Your task to perform on an android device: turn on the 12-hour format for clock Image 0: 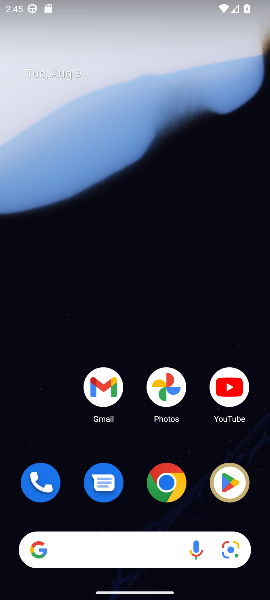
Step 0: drag from (152, 241) to (171, 0)
Your task to perform on an android device: turn on the 12-hour format for clock Image 1: 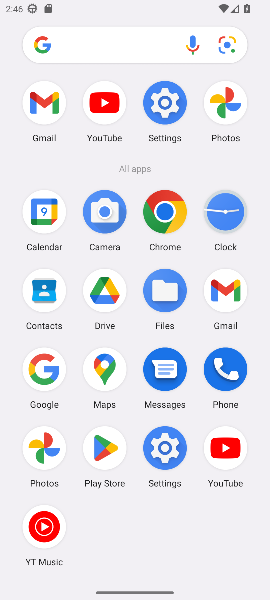
Step 1: click (213, 200)
Your task to perform on an android device: turn on the 12-hour format for clock Image 2: 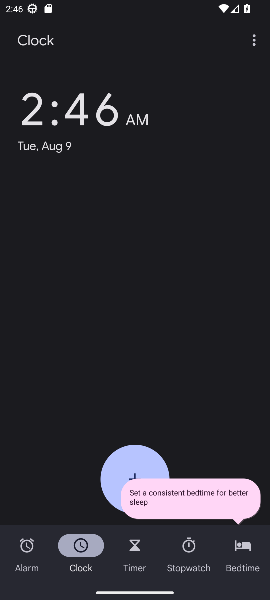
Step 2: click (258, 40)
Your task to perform on an android device: turn on the 12-hour format for clock Image 3: 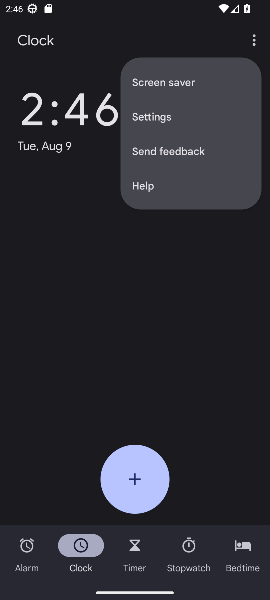
Step 3: click (159, 115)
Your task to perform on an android device: turn on the 12-hour format for clock Image 4: 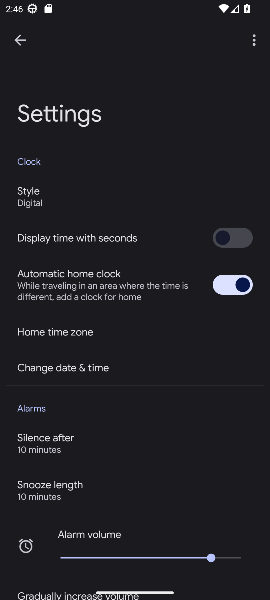
Step 4: click (84, 375)
Your task to perform on an android device: turn on the 12-hour format for clock Image 5: 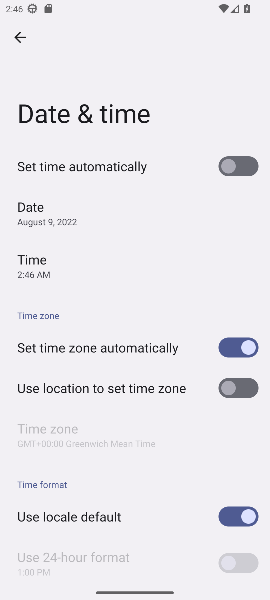
Step 5: task complete